Your task to perform on an android device: Open settings Image 0: 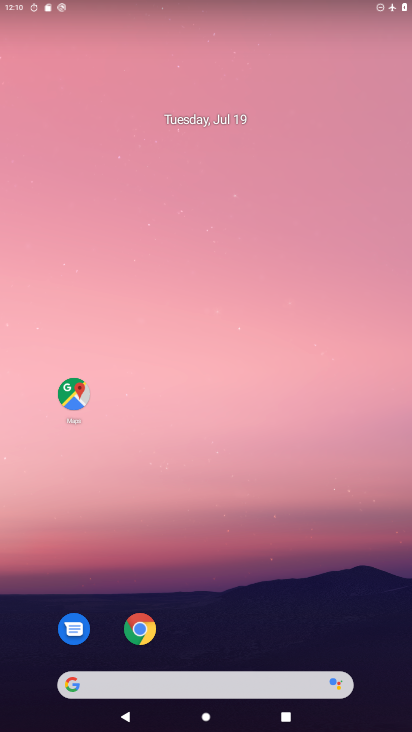
Step 0: drag from (256, 244) to (277, 110)
Your task to perform on an android device: Open settings Image 1: 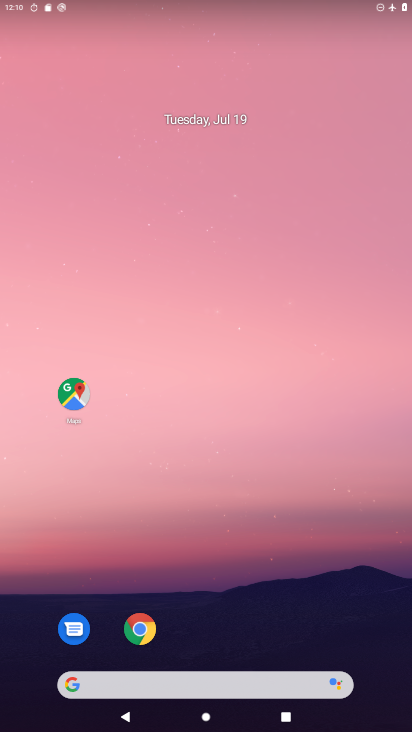
Step 1: drag from (252, 302) to (251, 91)
Your task to perform on an android device: Open settings Image 2: 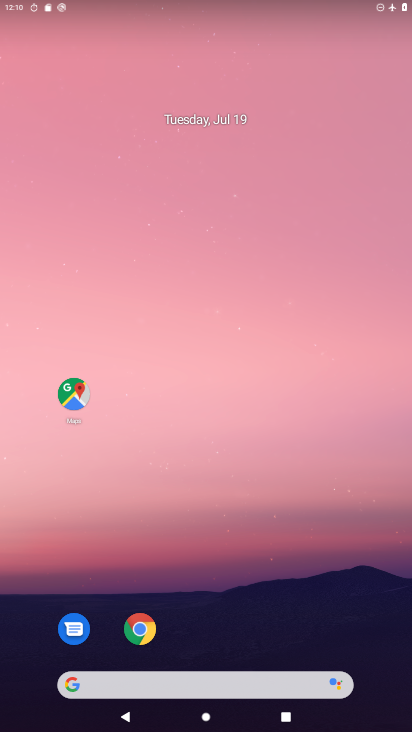
Step 2: drag from (280, 465) to (301, 51)
Your task to perform on an android device: Open settings Image 3: 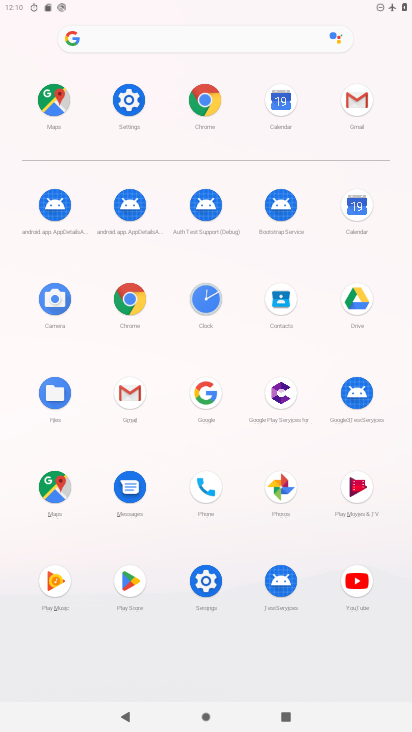
Step 3: click (125, 96)
Your task to perform on an android device: Open settings Image 4: 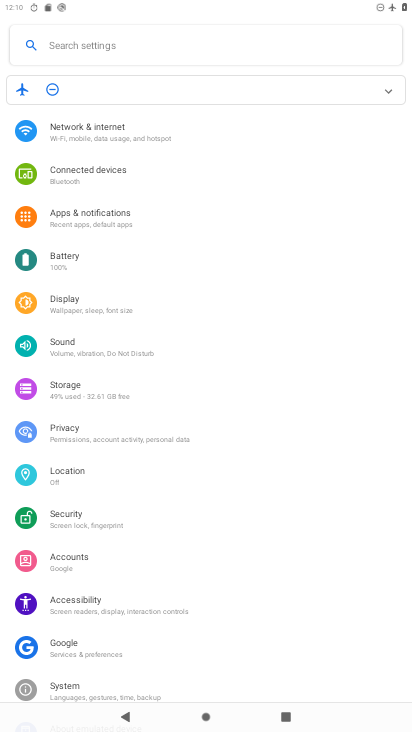
Step 4: task complete